Your task to perform on an android device: make emails show in primary in the gmail app Image 0: 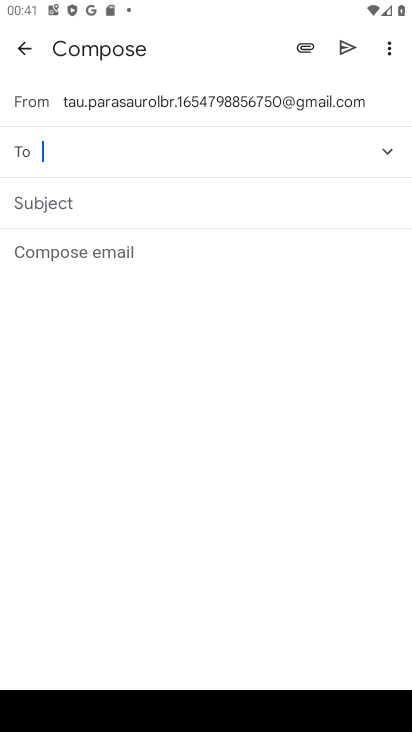
Step 0: click (26, 51)
Your task to perform on an android device: make emails show in primary in the gmail app Image 1: 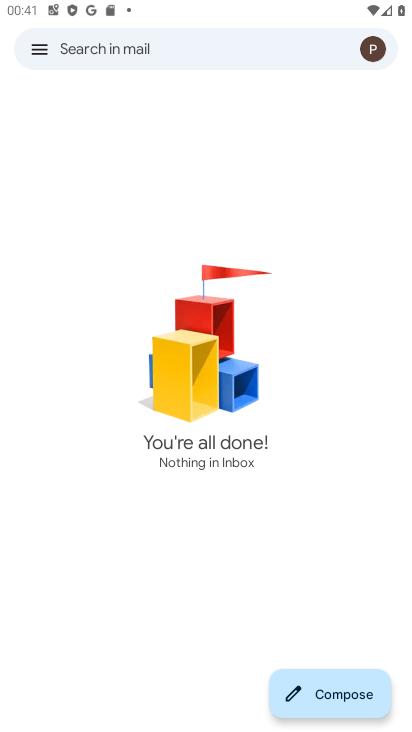
Step 1: click (32, 46)
Your task to perform on an android device: make emails show in primary in the gmail app Image 2: 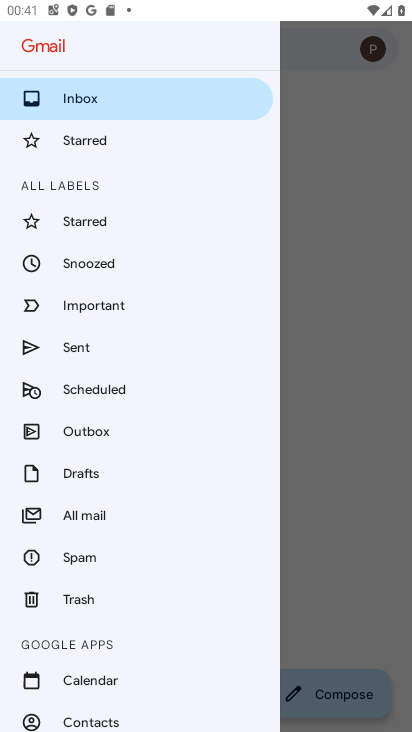
Step 2: task complete